Your task to perform on an android device: turn on the 24-hour format for clock Image 0: 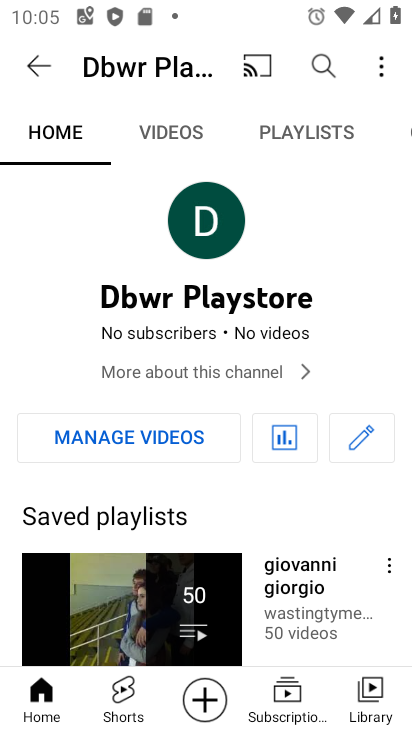
Step 0: press back button
Your task to perform on an android device: turn on the 24-hour format for clock Image 1: 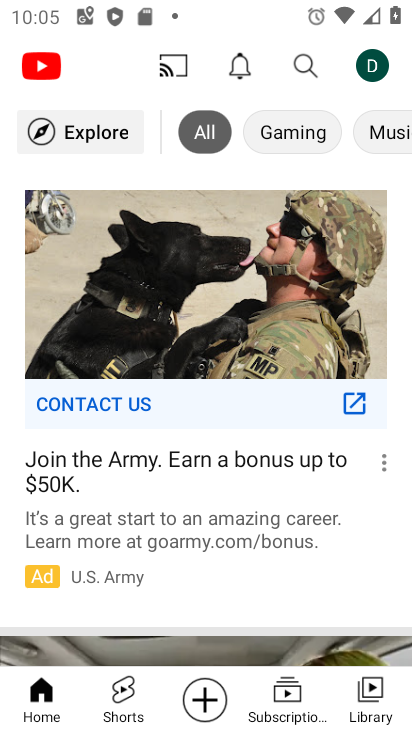
Step 1: press back button
Your task to perform on an android device: turn on the 24-hour format for clock Image 2: 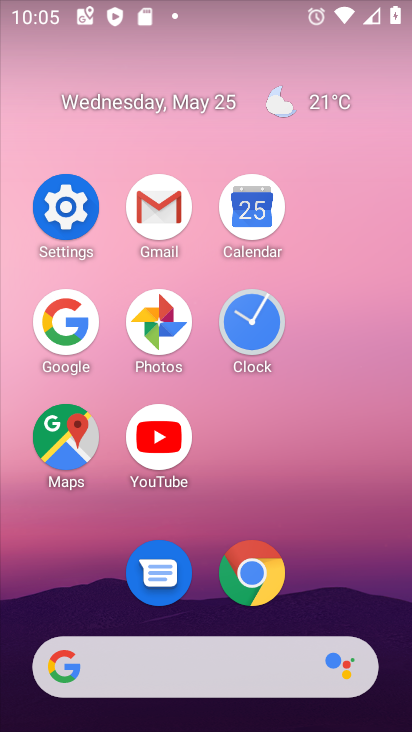
Step 2: click (261, 313)
Your task to perform on an android device: turn on the 24-hour format for clock Image 3: 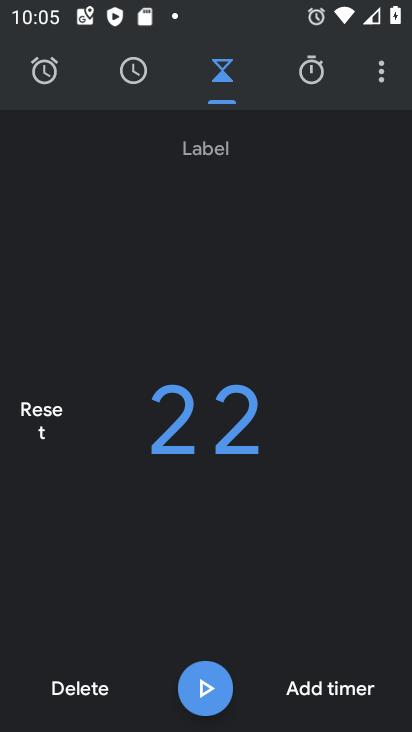
Step 3: click (389, 74)
Your task to perform on an android device: turn on the 24-hour format for clock Image 4: 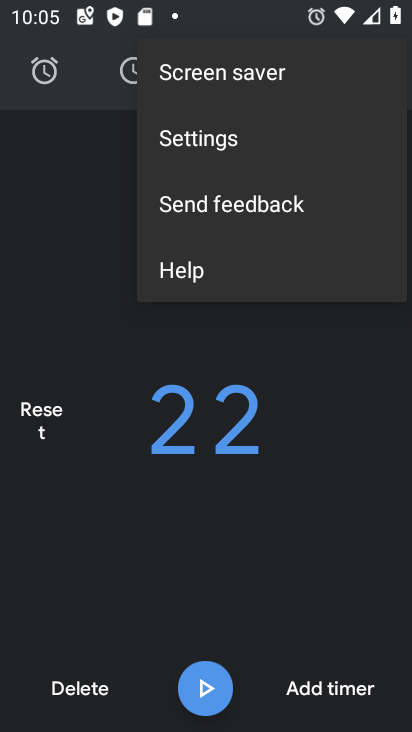
Step 4: click (278, 152)
Your task to perform on an android device: turn on the 24-hour format for clock Image 5: 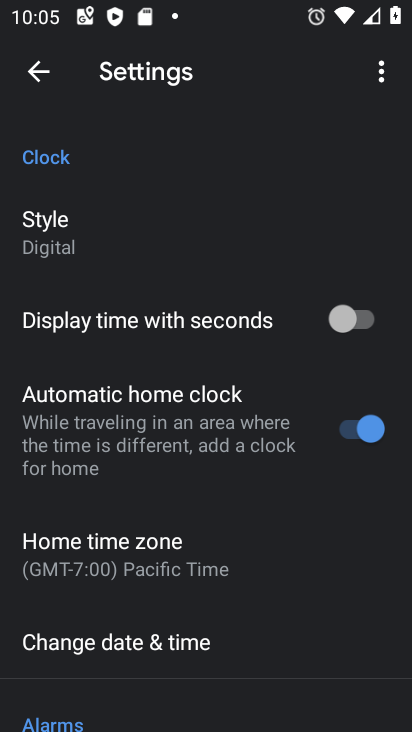
Step 5: drag from (220, 545) to (261, 172)
Your task to perform on an android device: turn on the 24-hour format for clock Image 6: 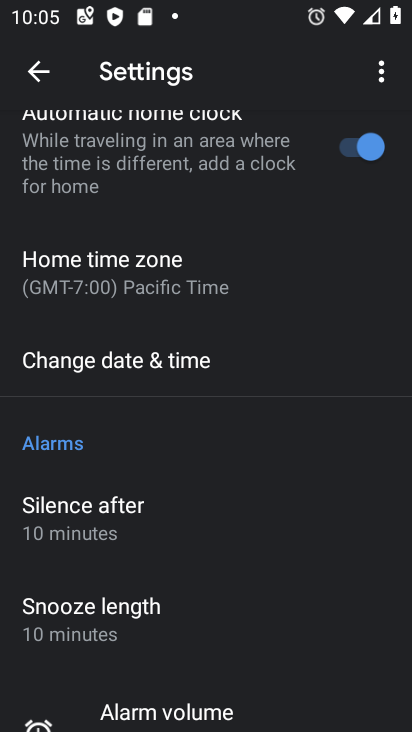
Step 6: click (176, 346)
Your task to perform on an android device: turn on the 24-hour format for clock Image 7: 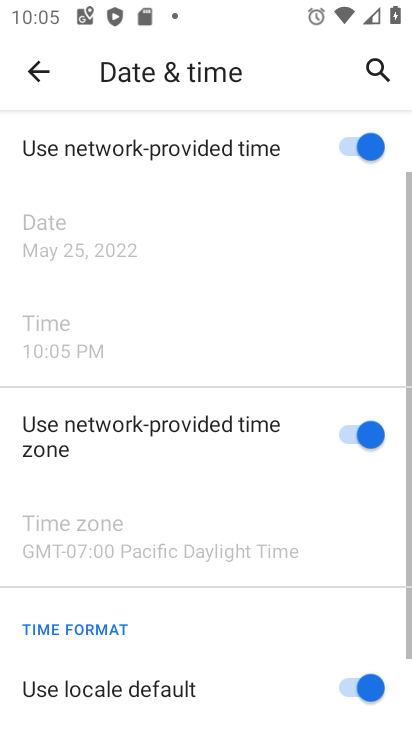
Step 7: drag from (288, 586) to (284, 105)
Your task to perform on an android device: turn on the 24-hour format for clock Image 8: 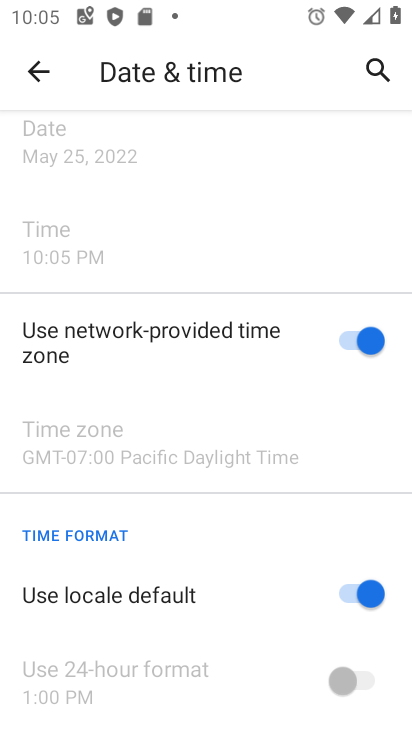
Step 8: click (361, 688)
Your task to perform on an android device: turn on the 24-hour format for clock Image 9: 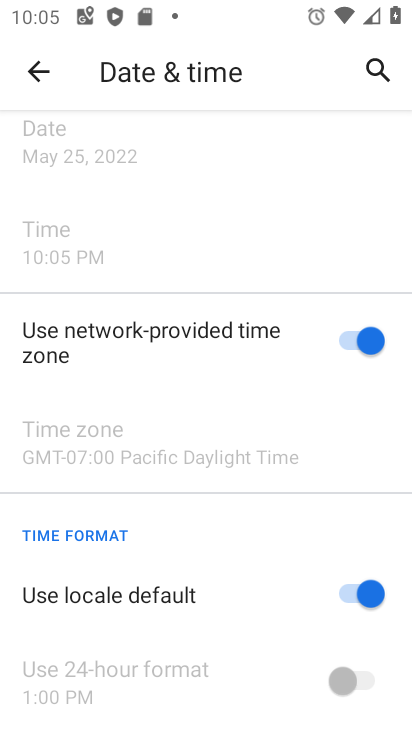
Step 9: click (388, 578)
Your task to perform on an android device: turn on the 24-hour format for clock Image 10: 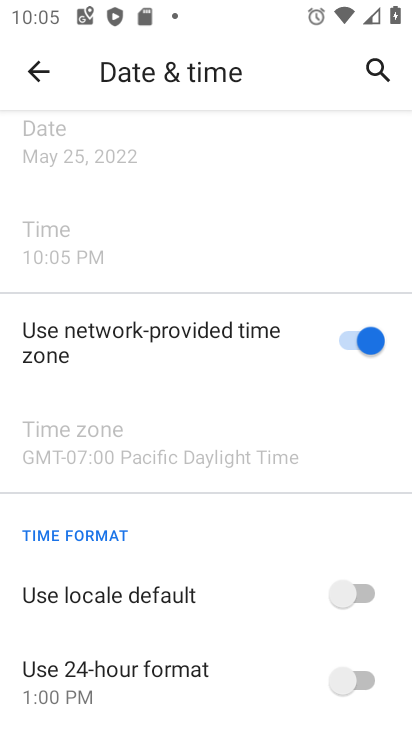
Step 10: click (356, 673)
Your task to perform on an android device: turn on the 24-hour format for clock Image 11: 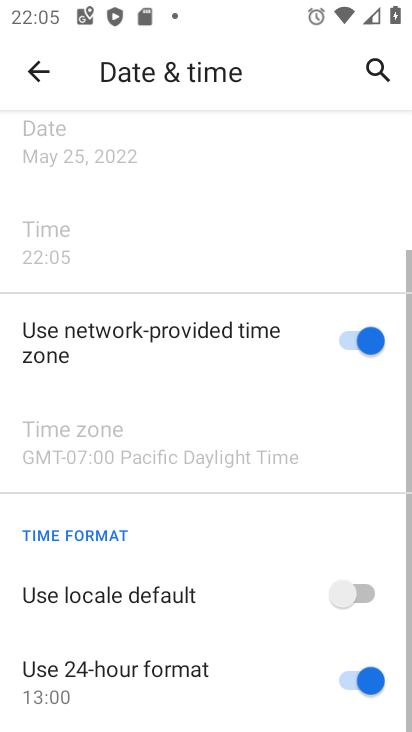
Step 11: task complete